Your task to perform on an android device: Open sound settings Image 0: 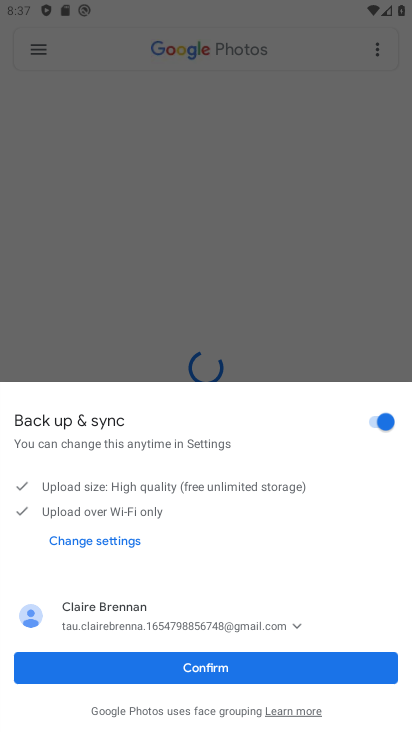
Step 0: press home button
Your task to perform on an android device: Open sound settings Image 1: 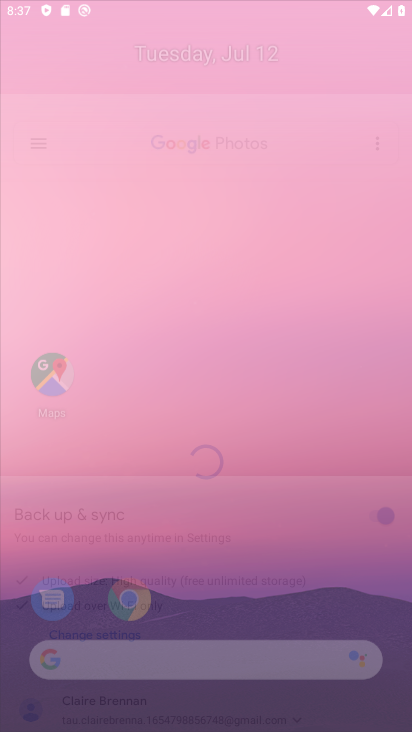
Step 1: press home button
Your task to perform on an android device: Open sound settings Image 2: 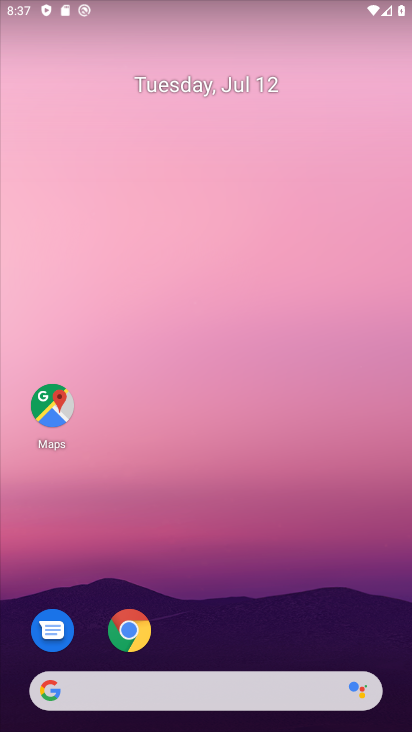
Step 2: drag from (256, 645) to (254, 400)
Your task to perform on an android device: Open sound settings Image 3: 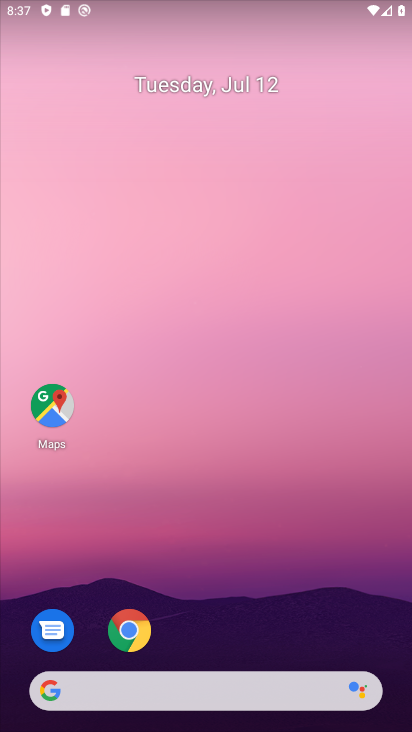
Step 3: drag from (249, 606) to (206, 139)
Your task to perform on an android device: Open sound settings Image 4: 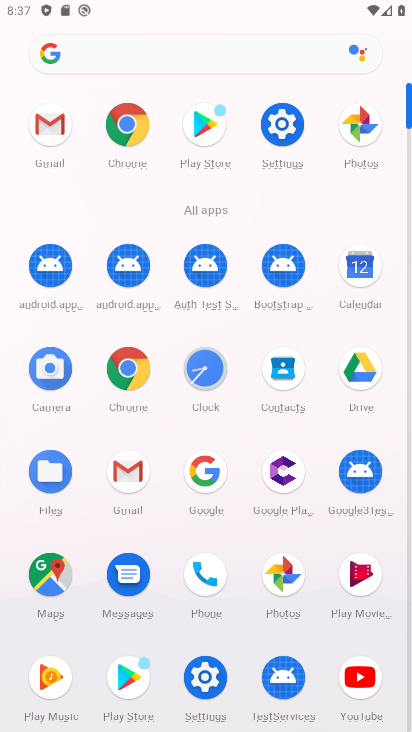
Step 4: click (281, 131)
Your task to perform on an android device: Open sound settings Image 5: 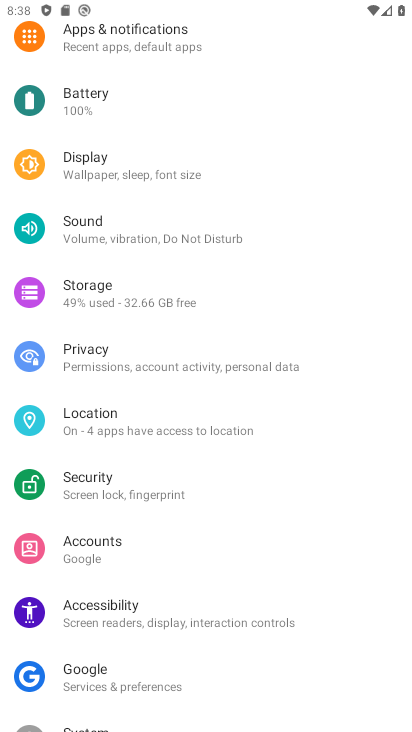
Step 5: click (142, 234)
Your task to perform on an android device: Open sound settings Image 6: 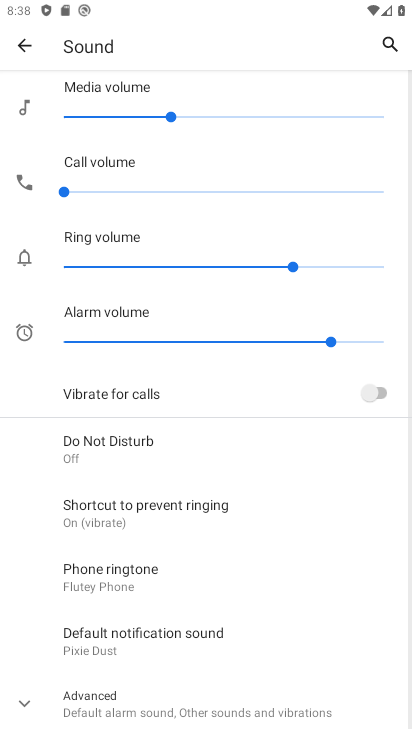
Step 6: task complete